Your task to perform on an android device: add a contact in the contacts app Image 0: 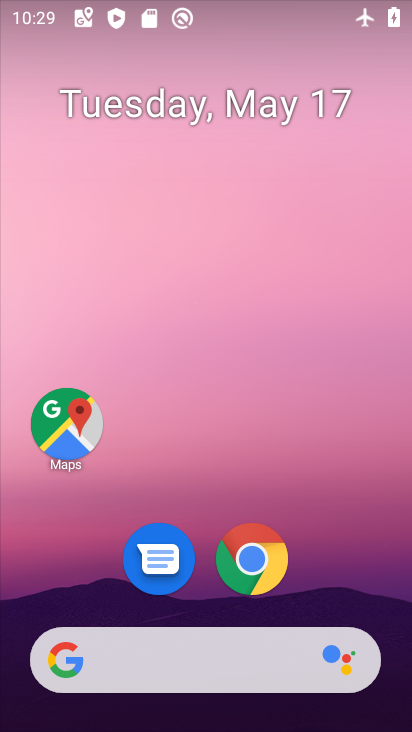
Step 0: drag from (202, 708) to (202, 175)
Your task to perform on an android device: add a contact in the contacts app Image 1: 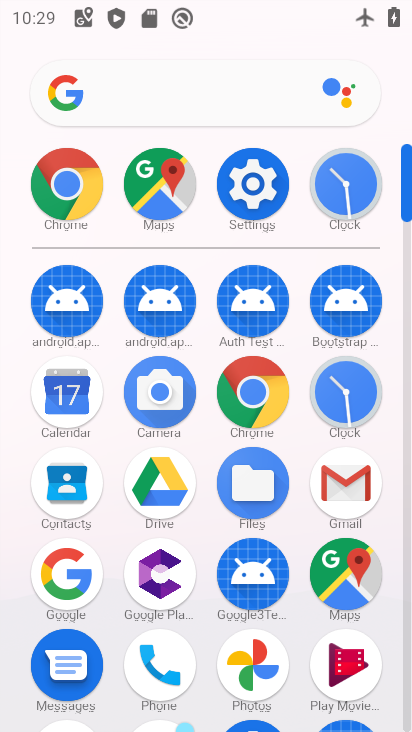
Step 1: click (62, 472)
Your task to perform on an android device: add a contact in the contacts app Image 2: 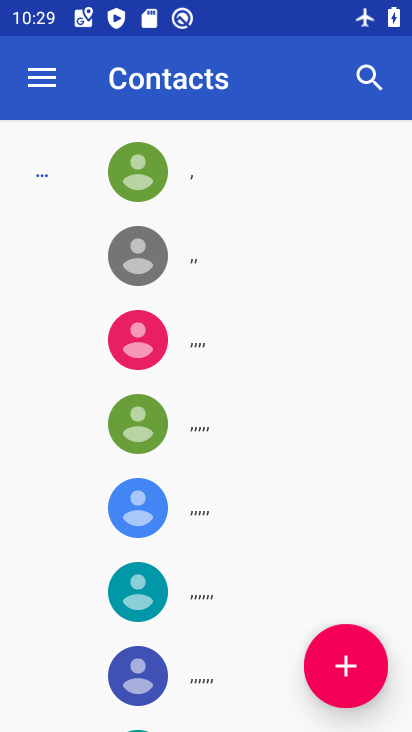
Step 2: click (360, 660)
Your task to perform on an android device: add a contact in the contacts app Image 3: 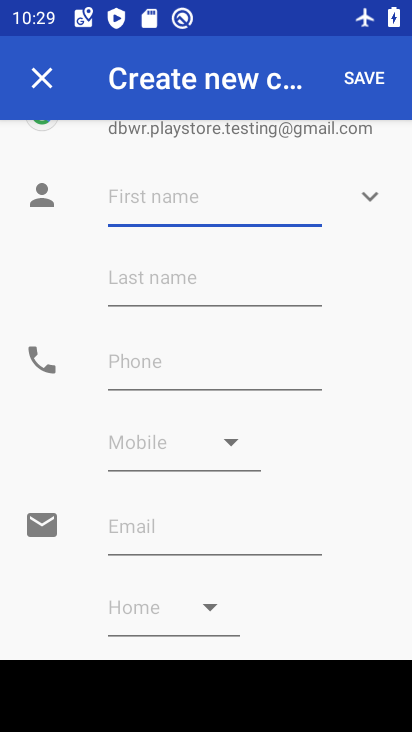
Step 3: type "jhvj"
Your task to perform on an android device: add a contact in the contacts app Image 4: 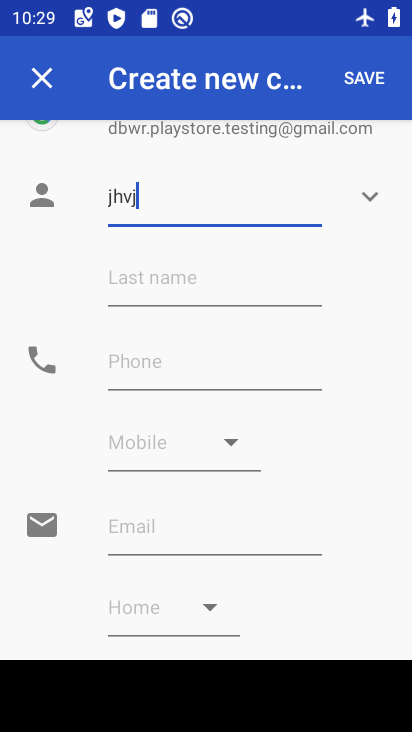
Step 4: click (158, 372)
Your task to perform on an android device: add a contact in the contacts app Image 5: 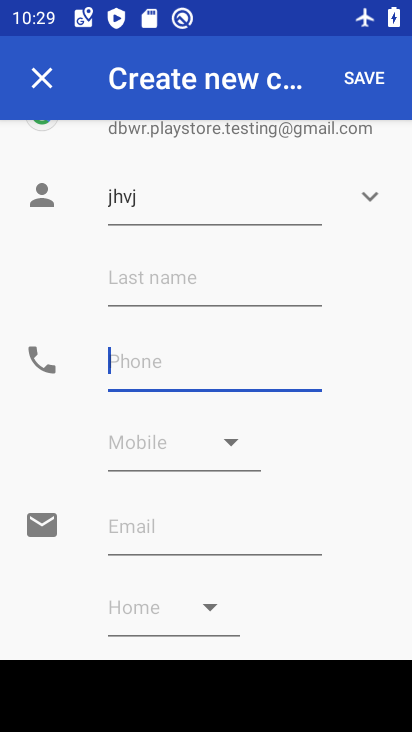
Step 5: type "878"
Your task to perform on an android device: add a contact in the contacts app Image 6: 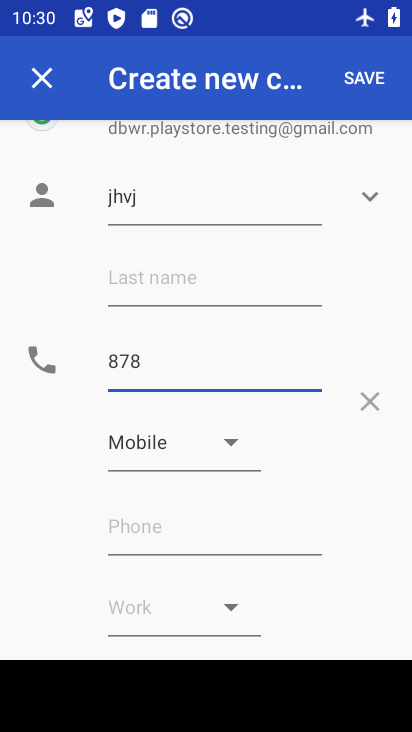
Step 6: click (375, 72)
Your task to perform on an android device: add a contact in the contacts app Image 7: 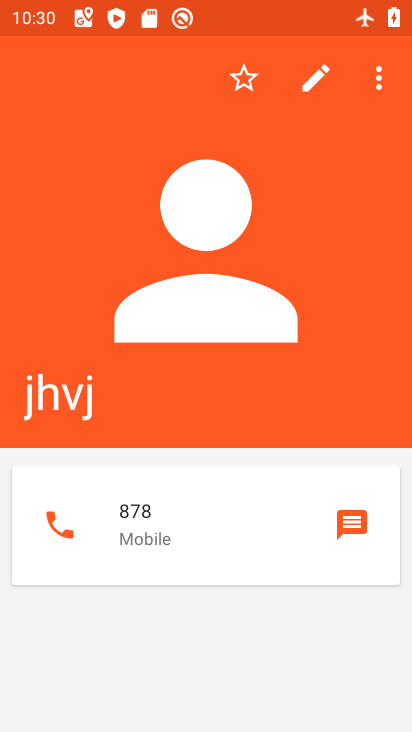
Step 7: task complete